Your task to perform on an android device: Open Chrome and go to the settings page Image 0: 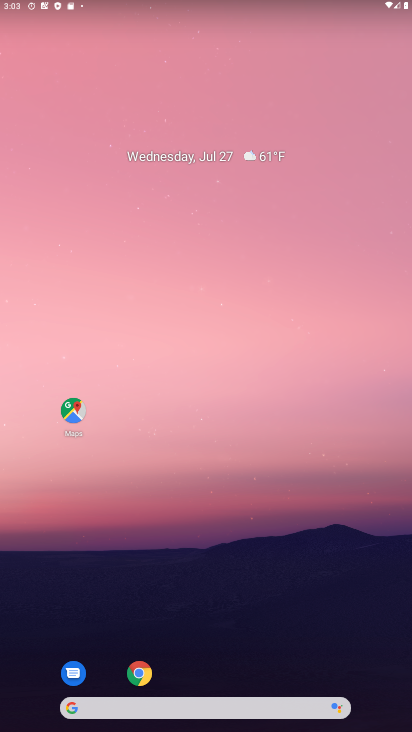
Step 0: click (134, 671)
Your task to perform on an android device: Open Chrome and go to the settings page Image 1: 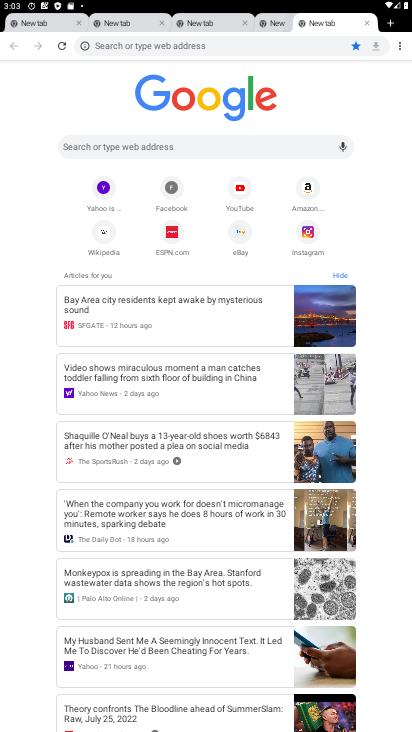
Step 1: click (398, 41)
Your task to perform on an android device: Open Chrome and go to the settings page Image 2: 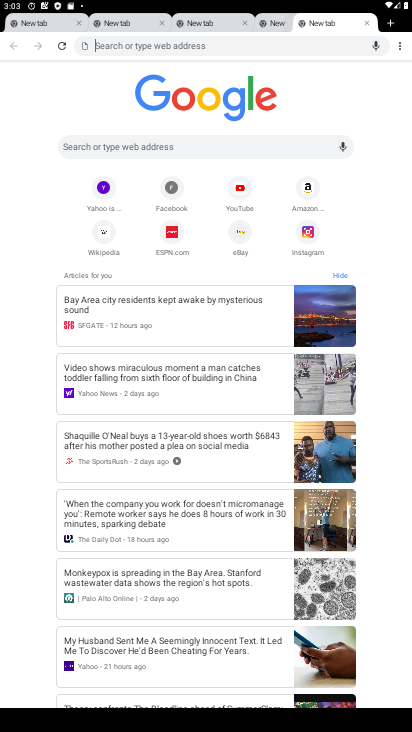
Step 2: click (400, 46)
Your task to perform on an android device: Open Chrome and go to the settings page Image 3: 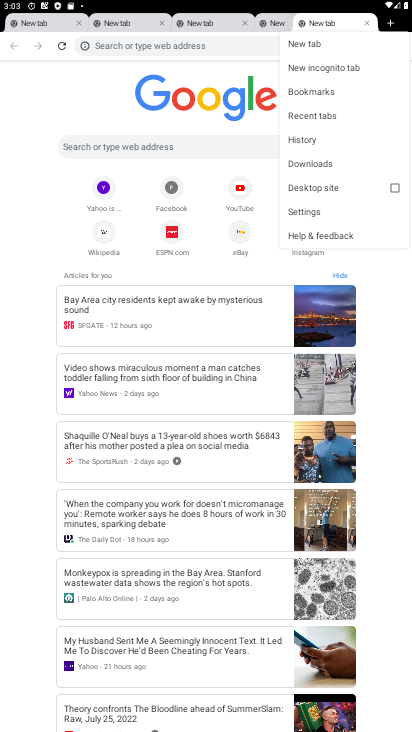
Step 3: click (311, 212)
Your task to perform on an android device: Open Chrome and go to the settings page Image 4: 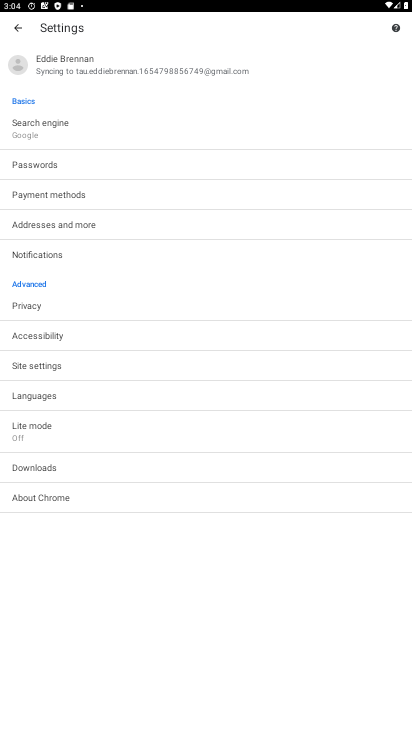
Step 4: task complete